Your task to perform on an android device: turn off location history Image 0: 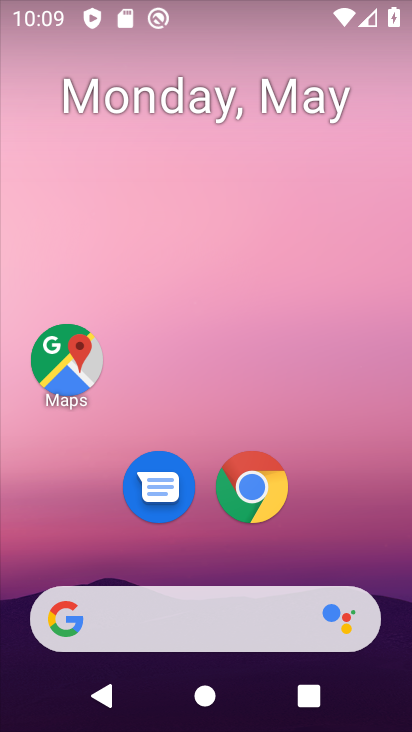
Step 0: drag from (381, 521) to (362, 163)
Your task to perform on an android device: turn off location history Image 1: 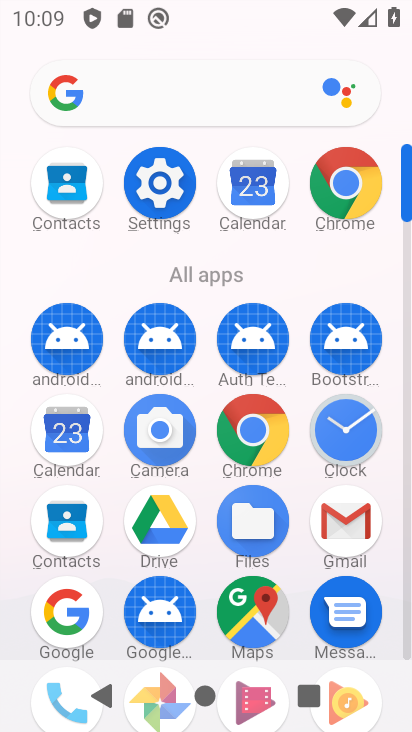
Step 1: click (162, 187)
Your task to perform on an android device: turn off location history Image 2: 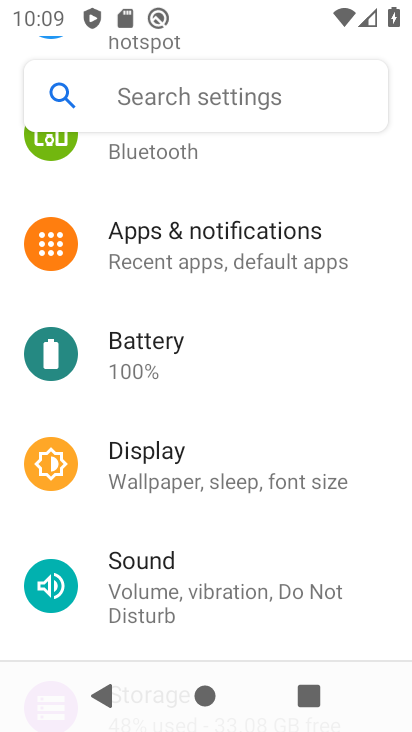
Step 2: drag from (367, 218) to (368, 345)
Your task to perform on an android device: turn off location history Image 3: 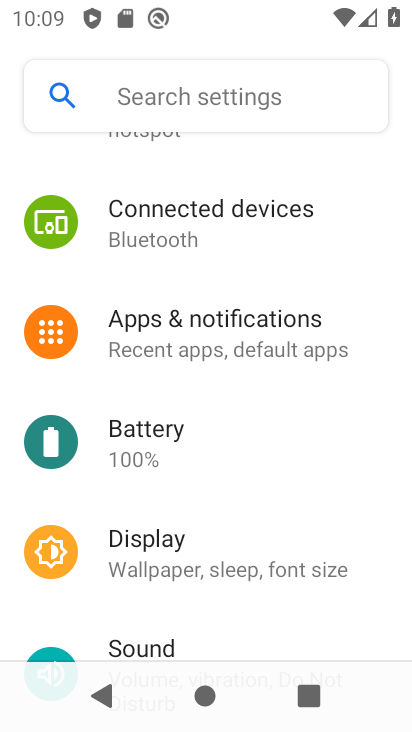
Step 3: drag from (352, 194) to (361, 345)
Your task to perform on an android device: turn off location history Image 4: 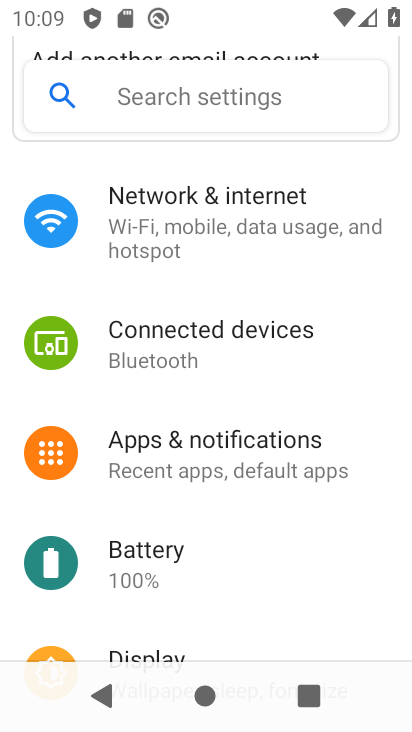
Step 4: drag from (353, 184) to (357, 329)
Your task to perform on an android device: turn off location history Image 5: 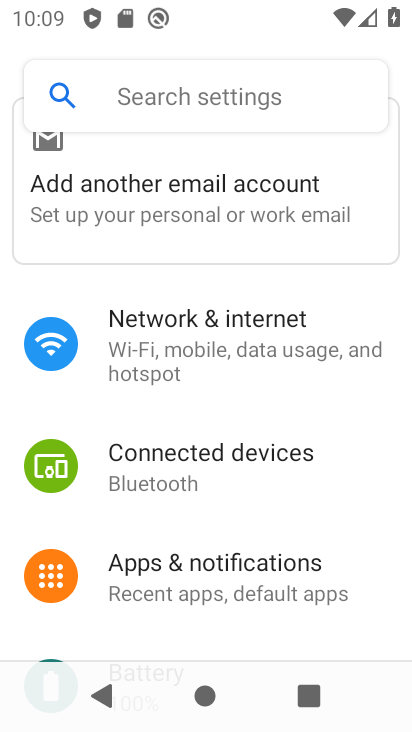
Step 5: drag from (360, 165) to (362, 336)
Your task to perform on an android device: turn off location history Image 6: 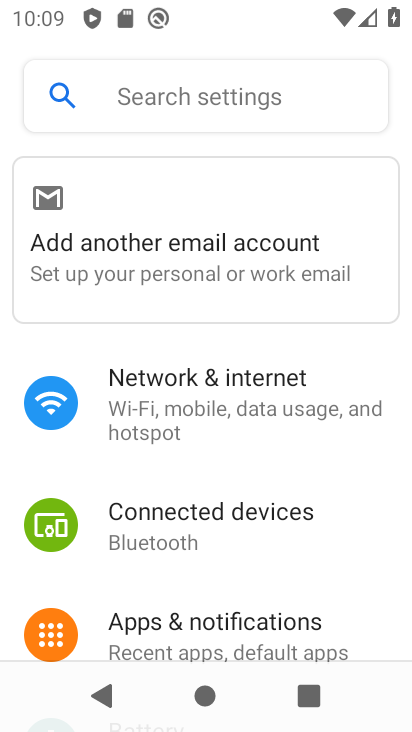
Step 6: drag from (354, 512) to (364, 332)
Your task to perform on an android device: turn off location history Image 7: 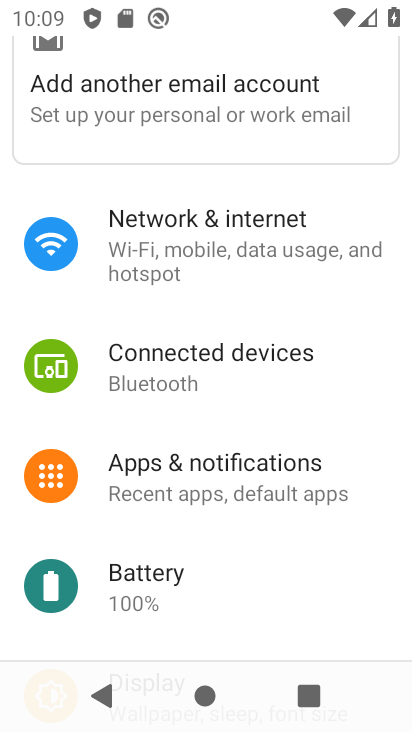
Step 7: drag from (371, 548) to (376, 408)
Your task to perform on an android device: turn off location history Image 8: 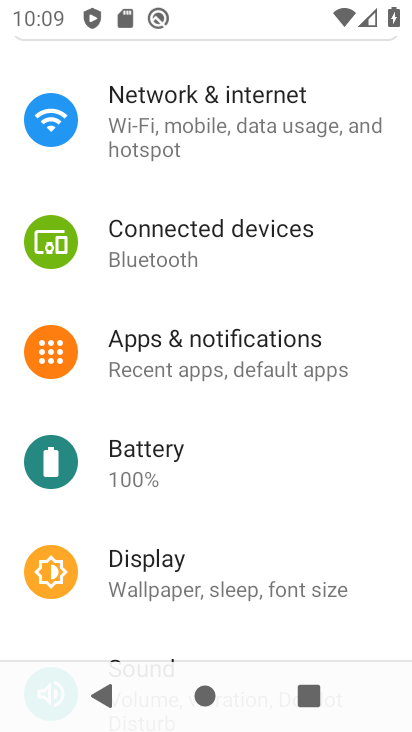
Step 8: drag from (363, 512) to (369, 356)
Your task to perform on an android device: turn off location history Image 9: 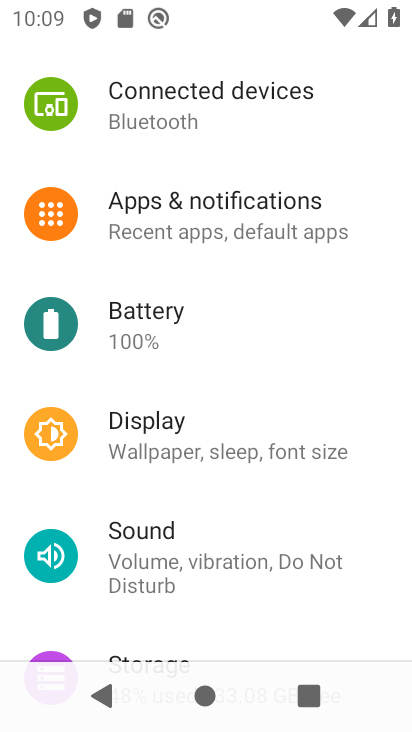
Step 9: drag from (379, 529) to (377, 400)
Your task to perform on an android device: turn off location history Image 10: 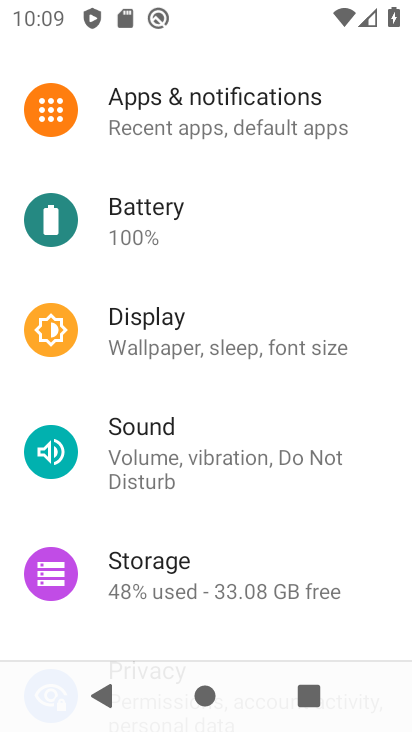
Step 10: drag from (373, 550) to (374, 414)
Your task to perform on an android device: turn off location history Image 11: 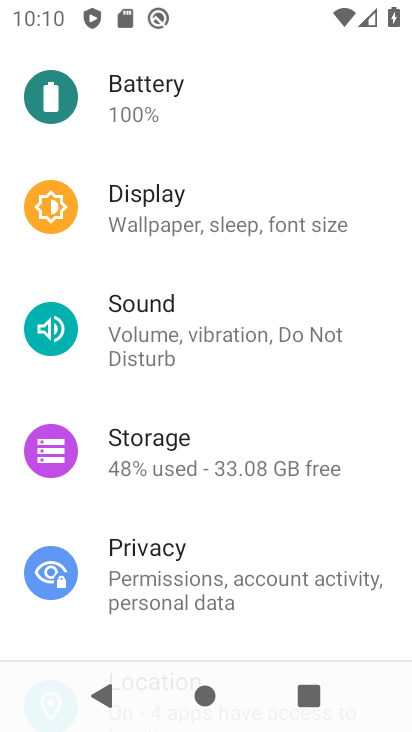
Step 11: drag from (369, 553) to (368, 412)
Your task to perform on an android device: turn off location history Image 12: 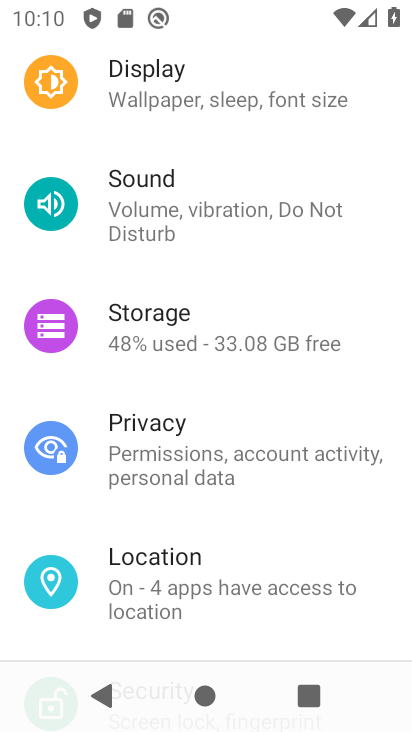
Step 12: drag from (376, 562) to (378, 424)
Your task to perform on an android device: turn off location history Image 13: 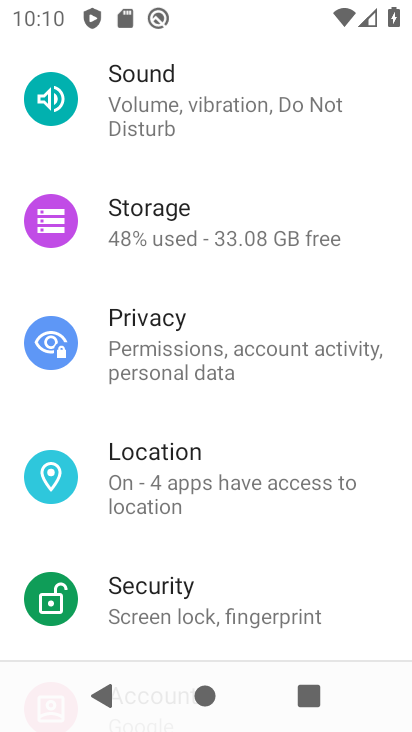
Step 13: drag from (373, 605) to (376, 450)
Your task to perform on an android device: turn off location history Image 14: 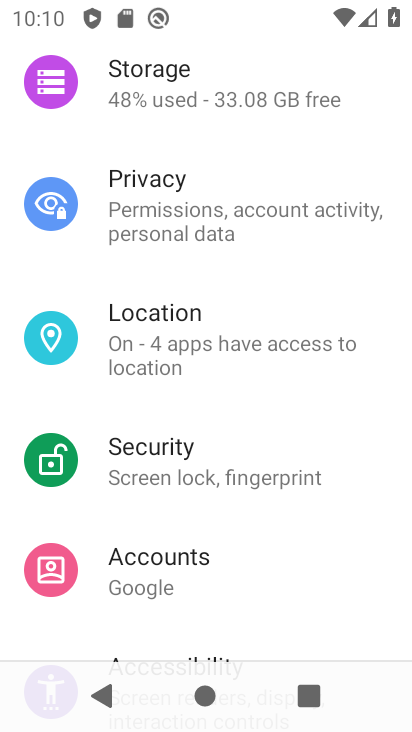
Step 14: drag from (365, 574) to (365, 448)
Your task to perform on an android device: turn off location history Image 15: 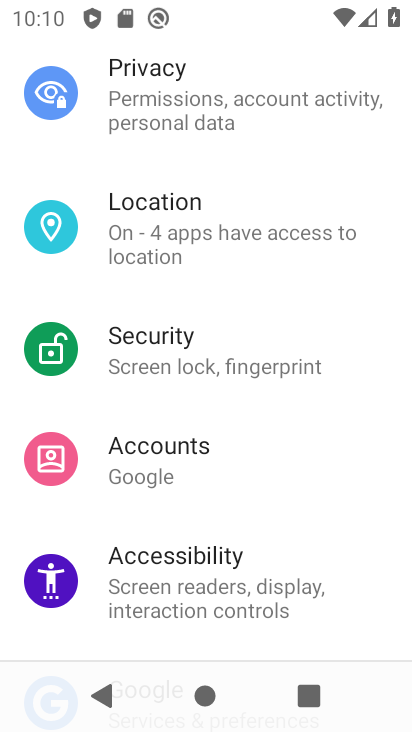
Step 15: drag from (360, 619) to (360, 467)
Your task to perform on an android device: turn off location history Image 16: 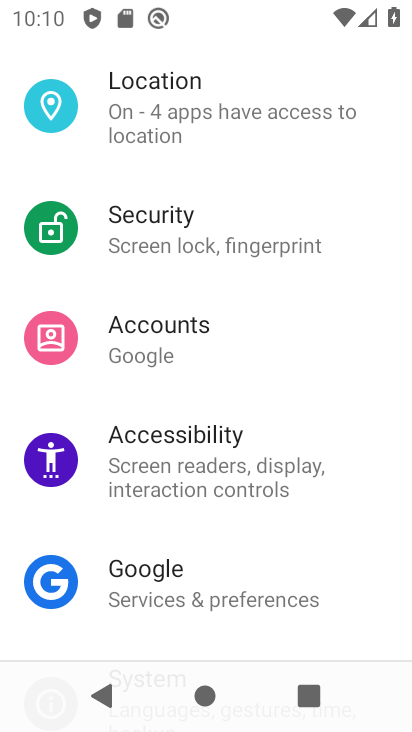
Step 16: drag from (354, 323) to (348, 453)
Your task to perform on an android device: turn off location history Image 17: 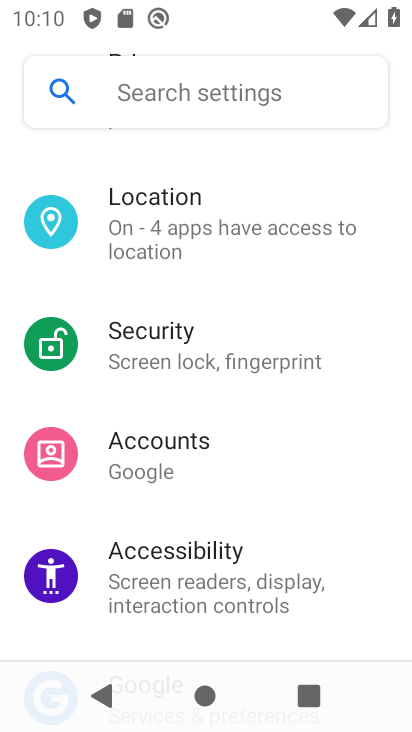
Step 17: drag from (357, 288) to (361, 422)
Your task to perform on an android device: turn off location history Image 18: 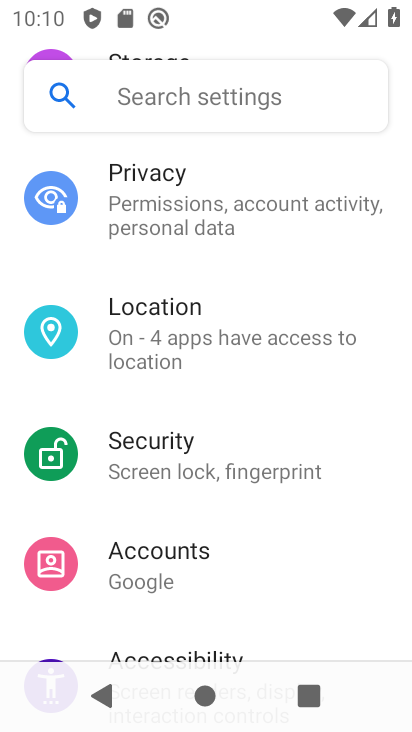
Step 18: click (287, 326)
Your task to perform on an android device: turn off location history Image 19: 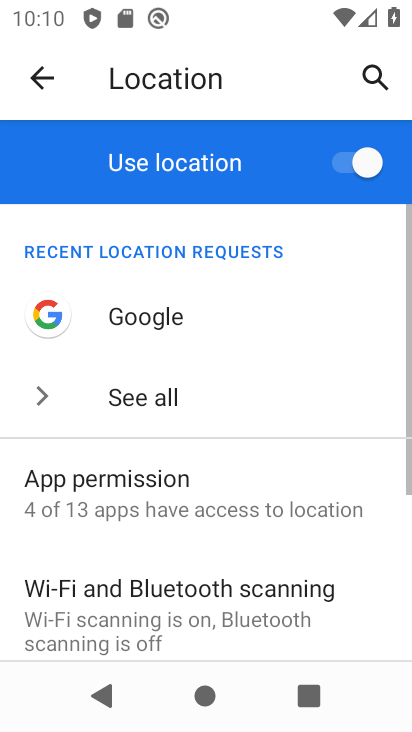
Step 19: drag from (373, 603) to (378, 450)
Your task to perform on an android device: turn off location history Image 20: 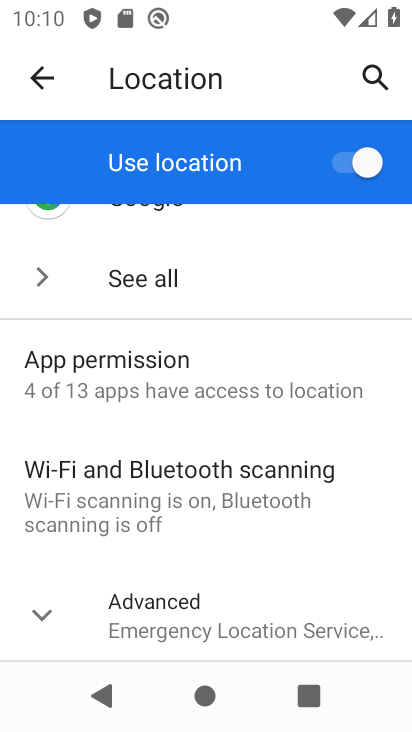
Step 20: drag from (366, 587) to (372, 432)
Your task to perform on an android device: turn off location history Image 21: 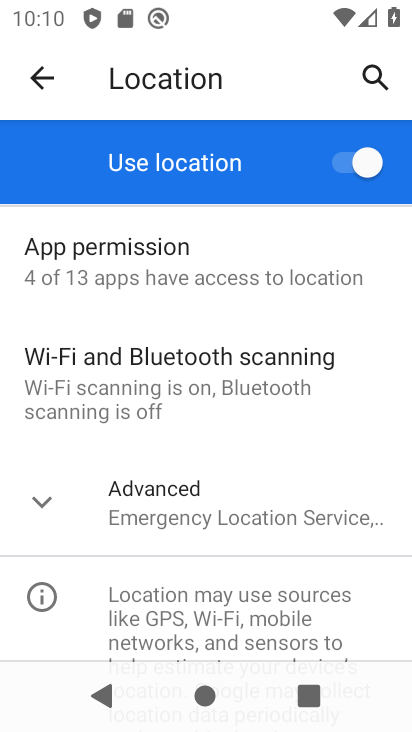
Step 21: click (280, 514)
Your task to perform on an android device: turn off location history Image 22: 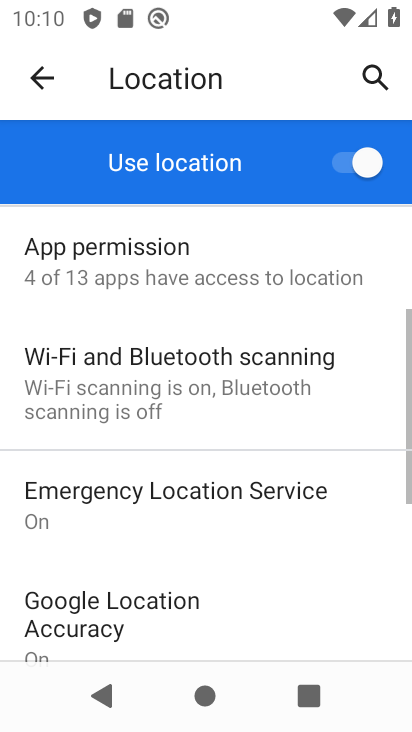
Step 22: drag from (354, 597) to (359, 429)
Your task to perform on an android device: turn off location history Image 23: 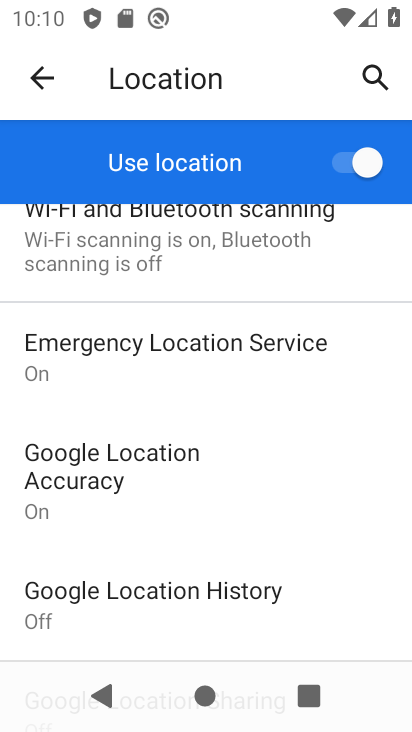
Step 23: drag from (351, 595) to (351, 472)
Your task to perform on an android device: turn off location history Image 24: 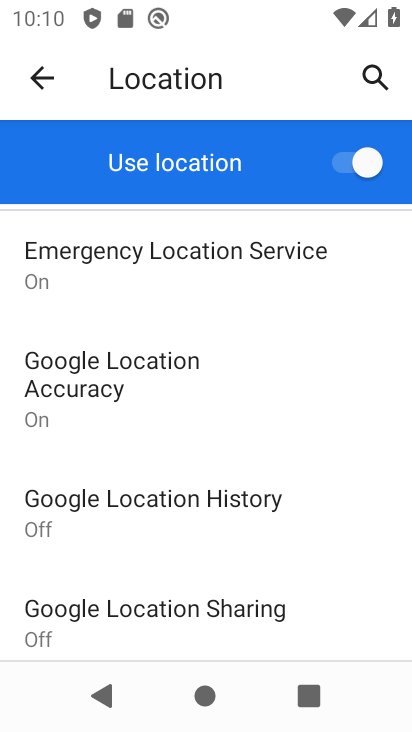
Step 24: click (263, 512)
Your task to perform on an android device: turn off location history Image 25: 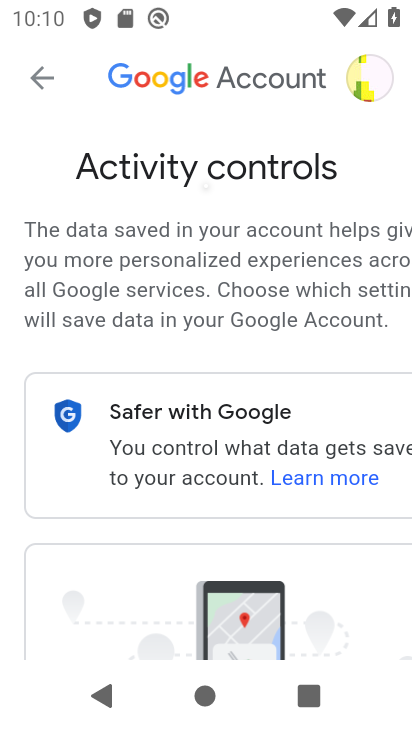
Step 25: drag from (292, 553) to (301, 421)
Your task to perform on an android device: turn off location history Image 26: 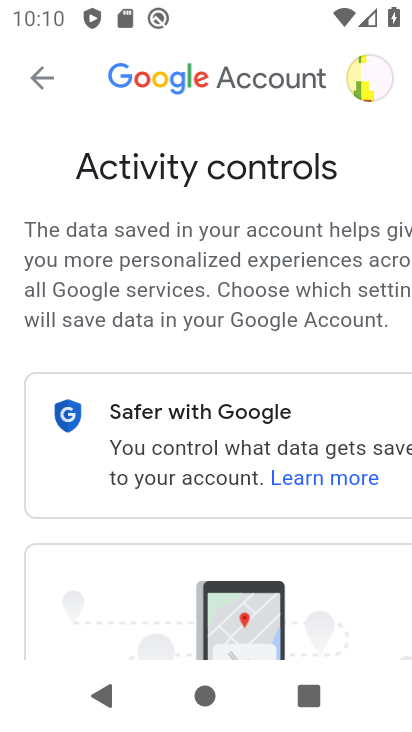
Step 26: drag from (321, 588) to (332, 405)
Your task to perform on an android device: turn off location history Image 27: 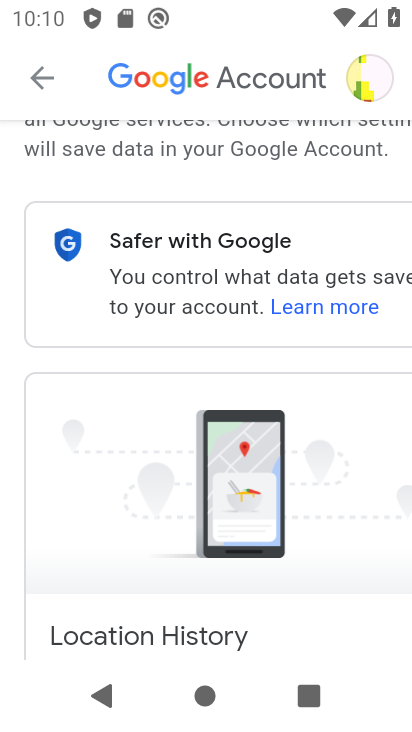
Step 27: drag from (308, 579) to (315, 425)
Your task to perform on an android device: turn off location history Image 28: 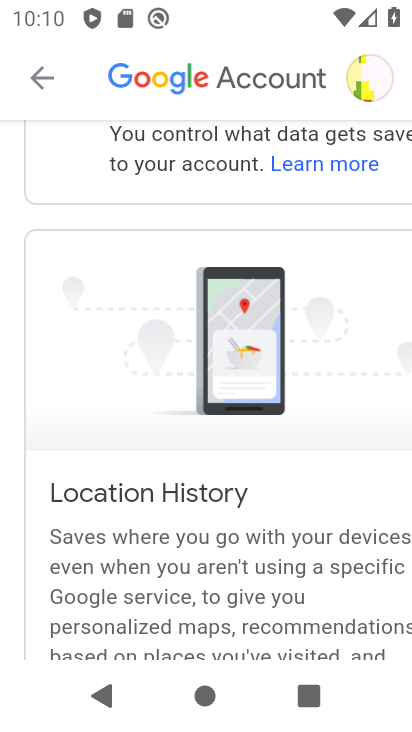
Step 28: drag from (320, 583) to (326, 425)
Your task to perform on an android device: turn off location history Image 29: 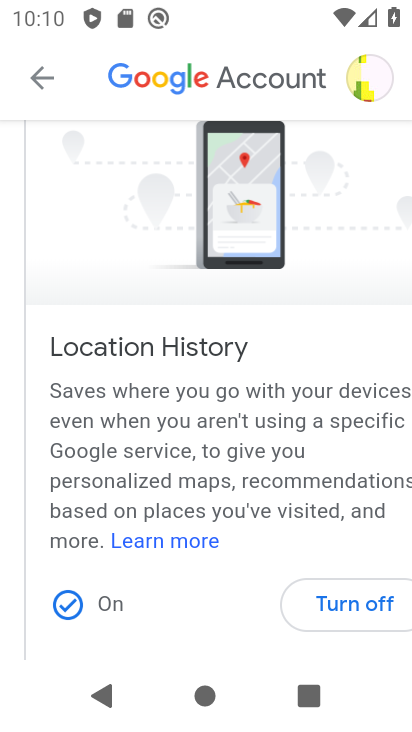
Step 29: click (383, 596)
Your task to perform on an android device: turn off location history Image 30: 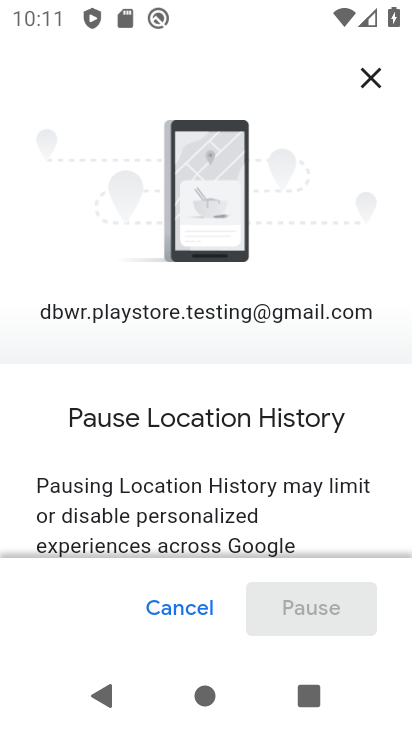
Step 30: drag from (230, 498) to (227, 320)
Your task to perform on an android device: turn off location history Image 31: 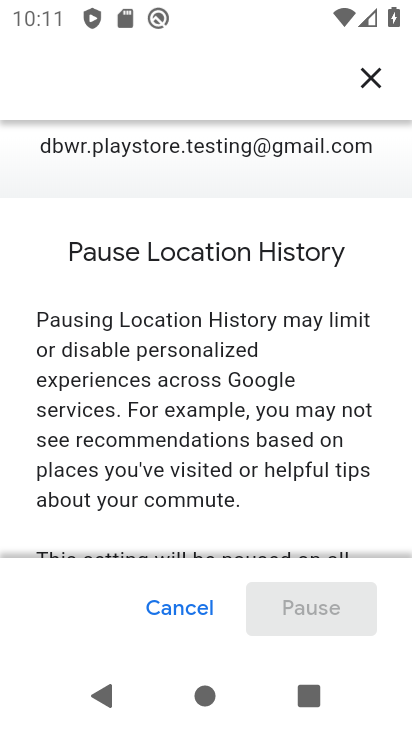
Step 31: drag from (232, 476) to (236, 317)
Your task to perform on an android device: turn off location history Image 32: 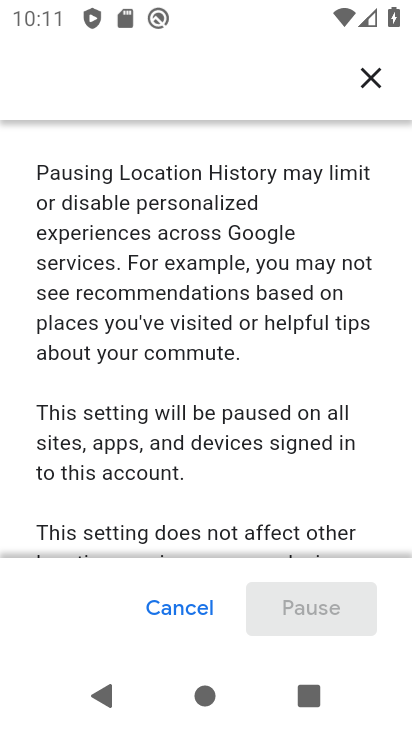
Step 32: drag from (255, 492) to (259, 342)
Your task to perform on an android device: turn off location history Image 33: 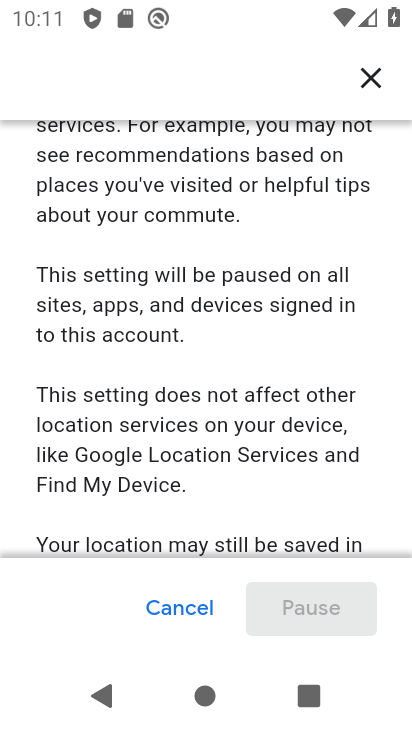
Step 33: drag from (277, 462) to (279, 379)
Your task to perform on an android device: turn off location history Image 34: 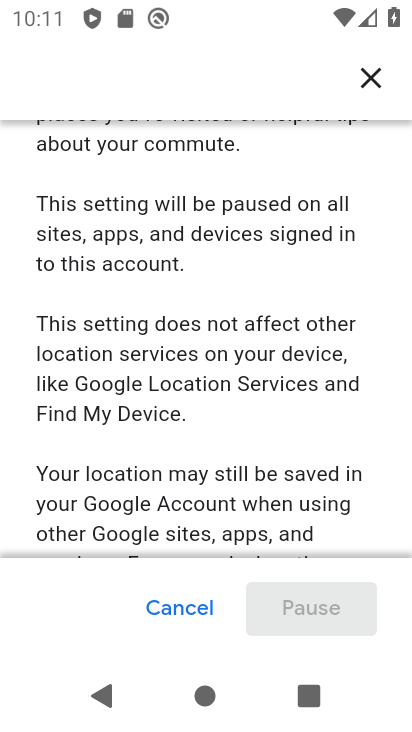
Step 34: drag from (267, 467) to (274, 309)
Your task to perform on an android device: turn off location history Image 35: 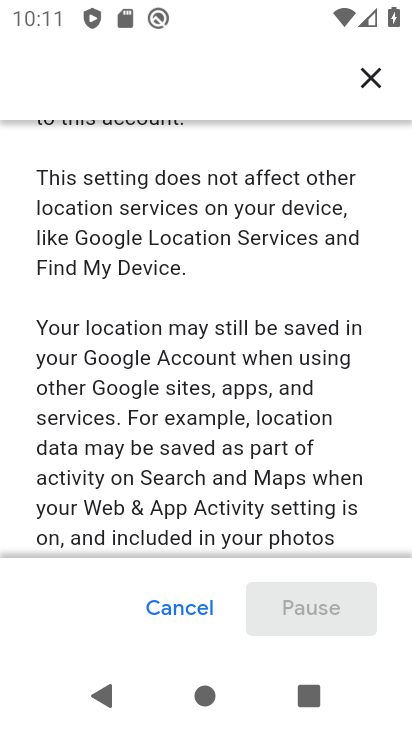
Step 35: drag from (275, 477) to (283, 299)
Your task to perform on an android device: turn off location history Image 36: 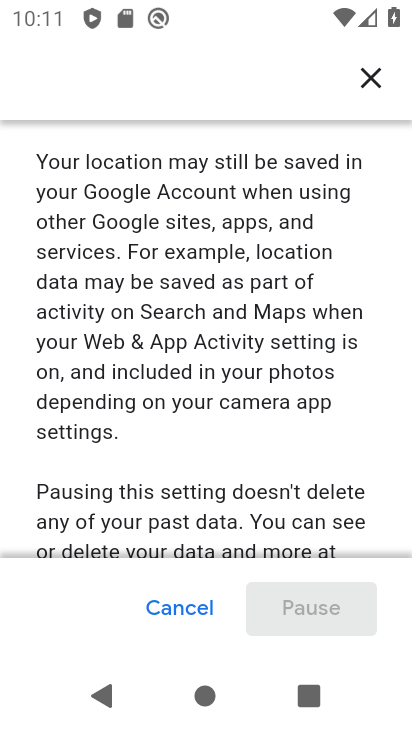
Step 36: drag from (290, 471) to (298, 326)
Your task to perform on an android device: turn off location history Image 37: 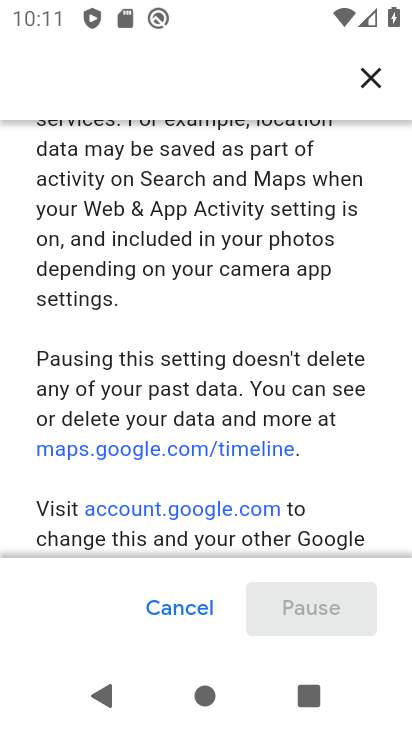
Step 37: drag from (345, 508) to (346, 329)
Your task to perform on an android device: turn off location history Image 38: 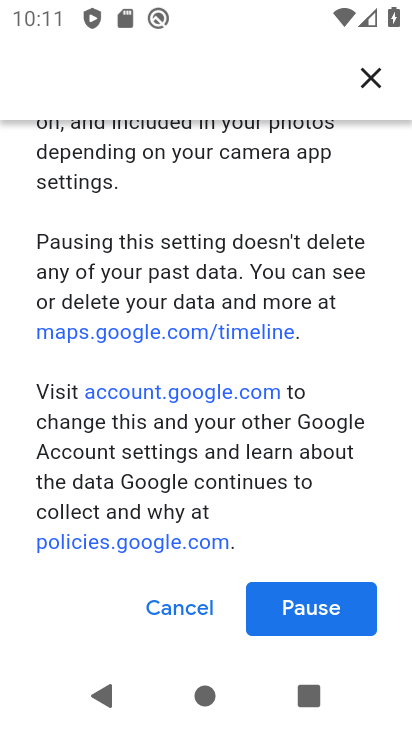
Step 38: click (351, 615)
Your task to perform on an android device: turn off location history Image 39: 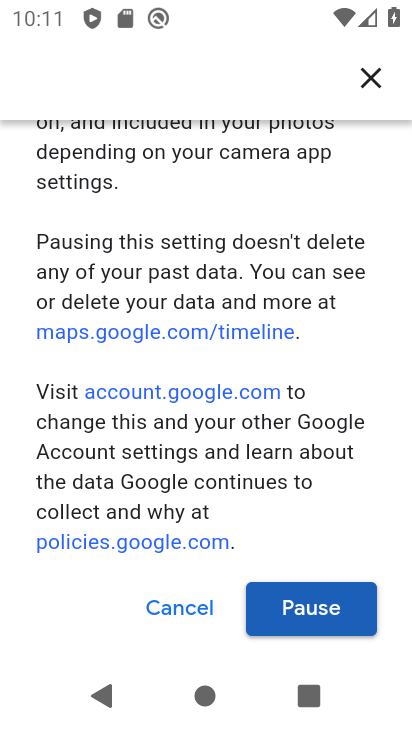
Step 39: click (341, 616)
Your task to perform on an android device: turn off location history Image 40: 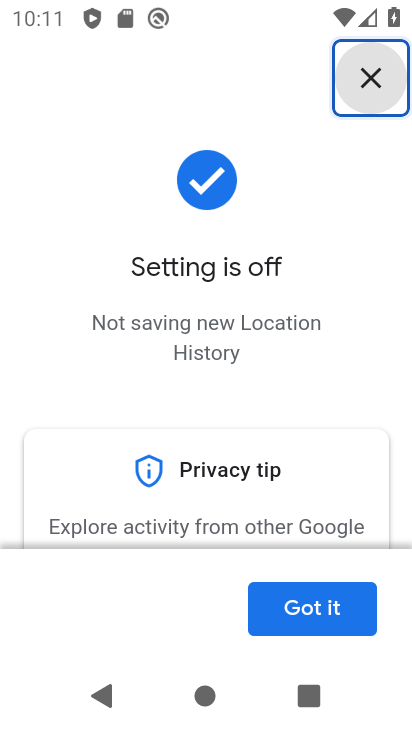
Step 40: task complete